Your task to perform on an android device: change notification settings in the gmail app Image 0: 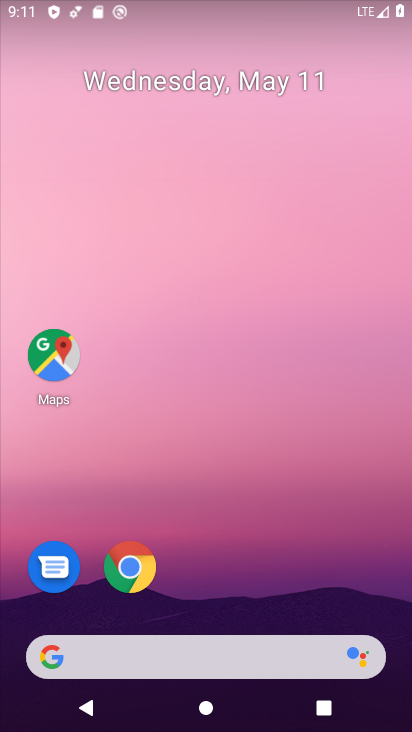
Step 0: drag from (267, 633) to (197, 9)
Your task to perform on an android device: change notification settings in the gmail app Image 1: 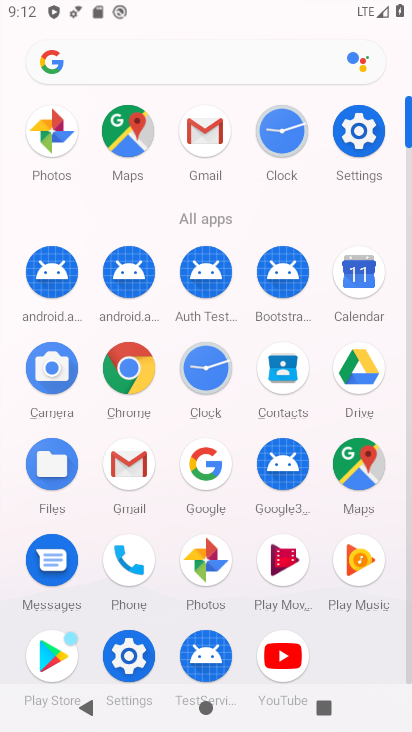
Step 1: click (218, 140)
Your task to perform on an android device: change notification settings in the gmail app Image 2: 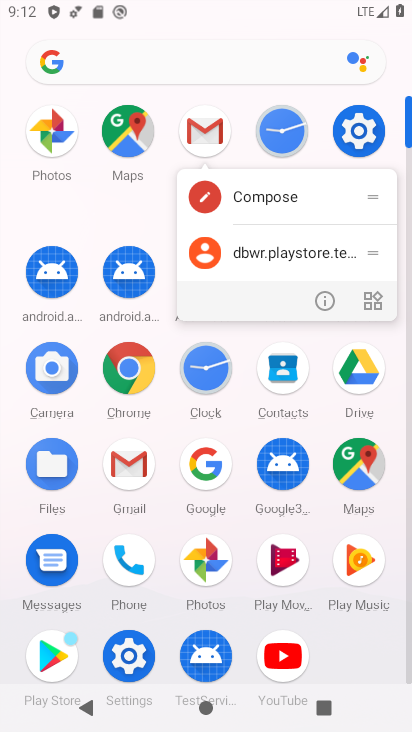
Step 2: click (322, 301)
Your task to perform on an android device: change notification settings in the gmail app Image 3: 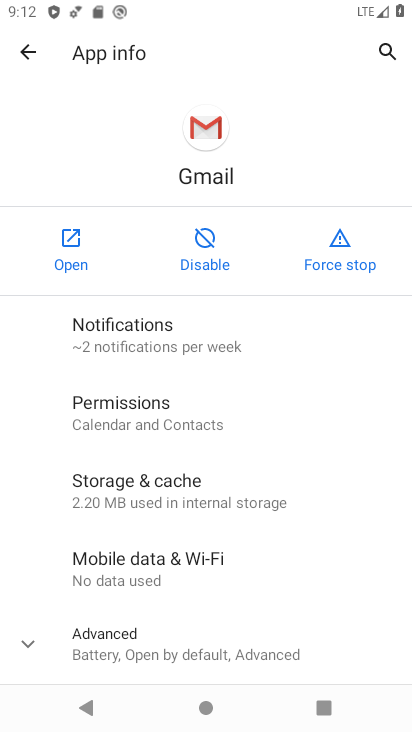
Step 3: click (128, 344)
Your task to perform on an android device: change notification settings in the gmail app Image 4: 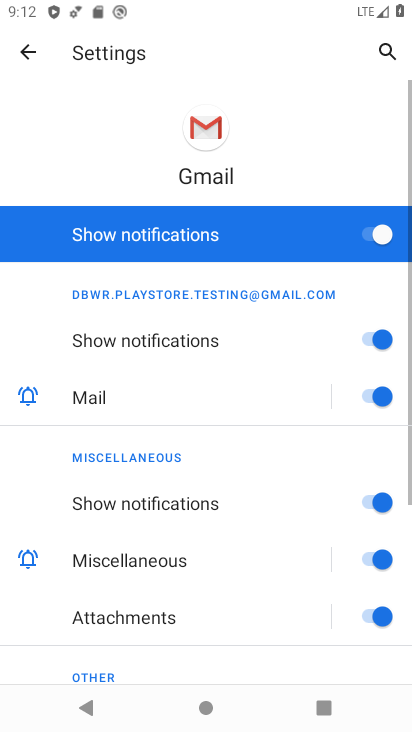
Step 4: click (379, 234)
Your task to perform on an android device: change notification settings in the gmail app Image 5: 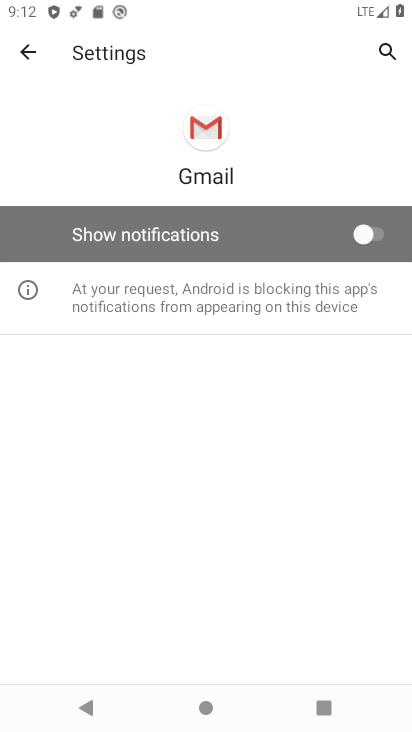
Step 5: task complete